Your task to perform on an android device: Where can I buy a nice beach chair? Image 0: 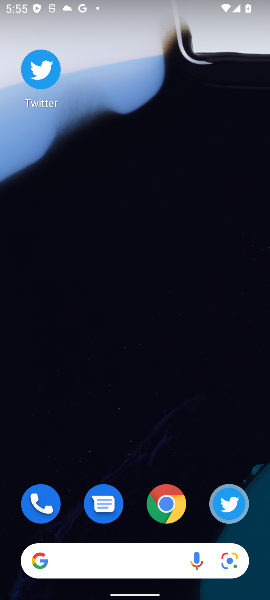
Step 0: type "Where can I buy a nice beach chair?"
Your task to perform on an android device: Where can I buy a nice beach chair? Image 1: 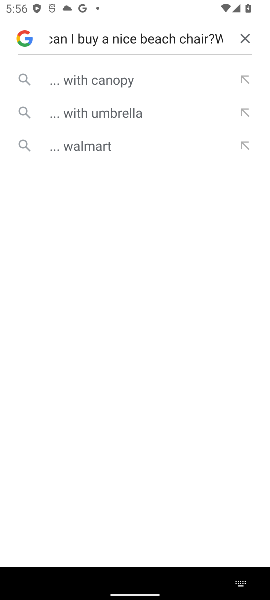
Step 1: click (247, 32)
Your task to perform on an android device: Where can I buy a nice beach chair? Image 2: 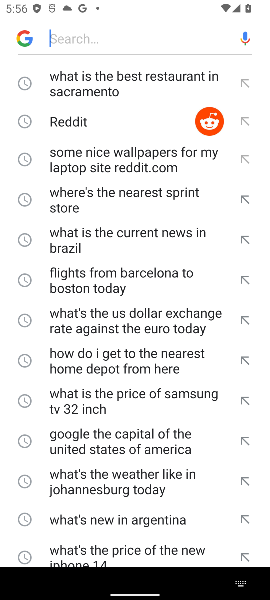
Step 2: type "Where can I buy a nice beach chair?"
Your task to perform on an android device: Where can I buy a nice beach chair? Image 3: 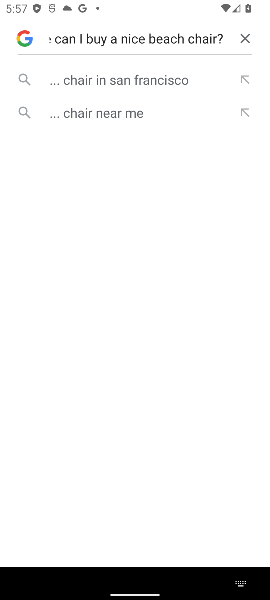
Step 3: click (113, 79)
Your task to perform on an android device: Where can I buy a nice beach chair? Image 4: 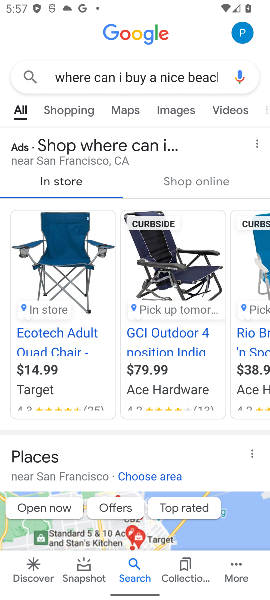
Step 4: task complete